Your task to perform on an android device: uninstall "Venmo" Image 0: 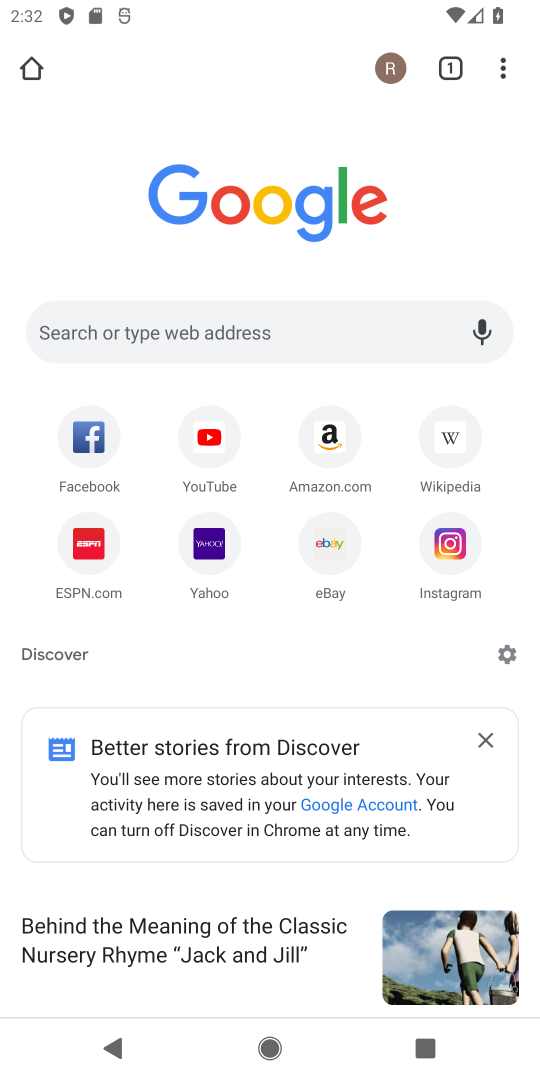
Step 0: press home button
Your task to perform on an android device: uninstall "Venmo" Image 1: 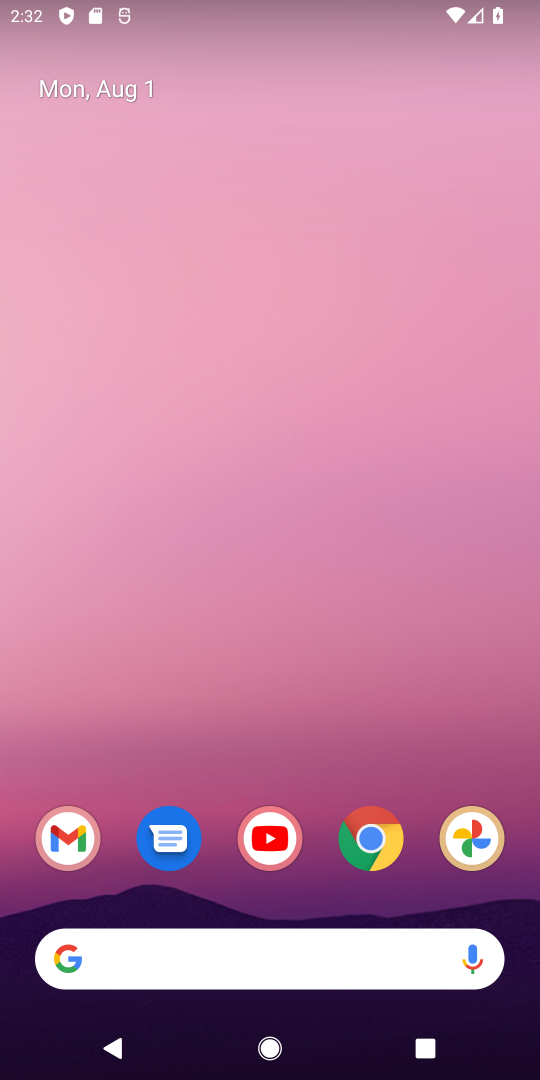
Step 1: drag from (341, 717) to (422, 2)
Your task to perform on an android device: uninstall "Venmo" Image 2: 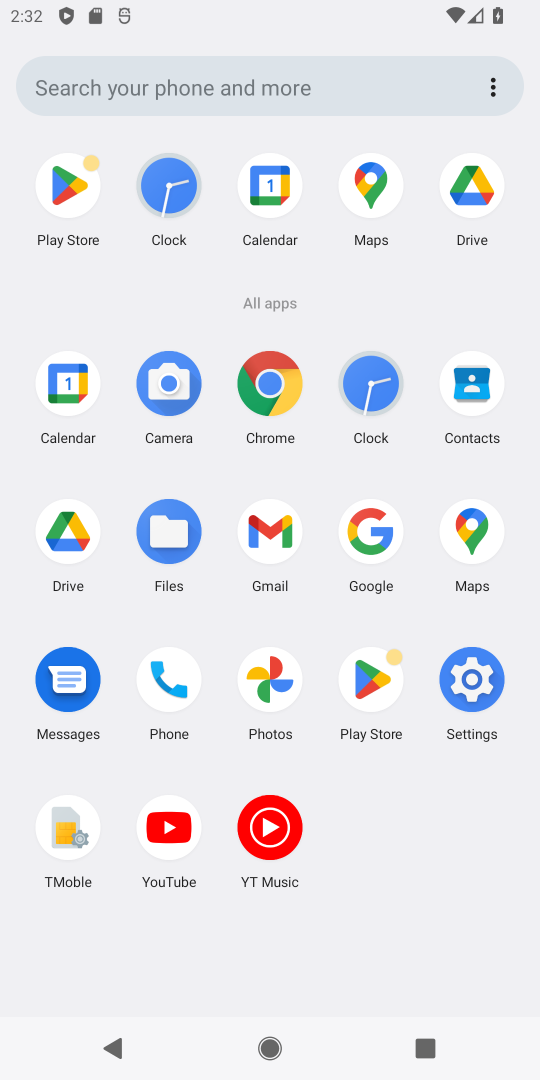
Step 2: click (378, 684)
Your task to perform on an android device: uninstall "Venmo" Image 3: 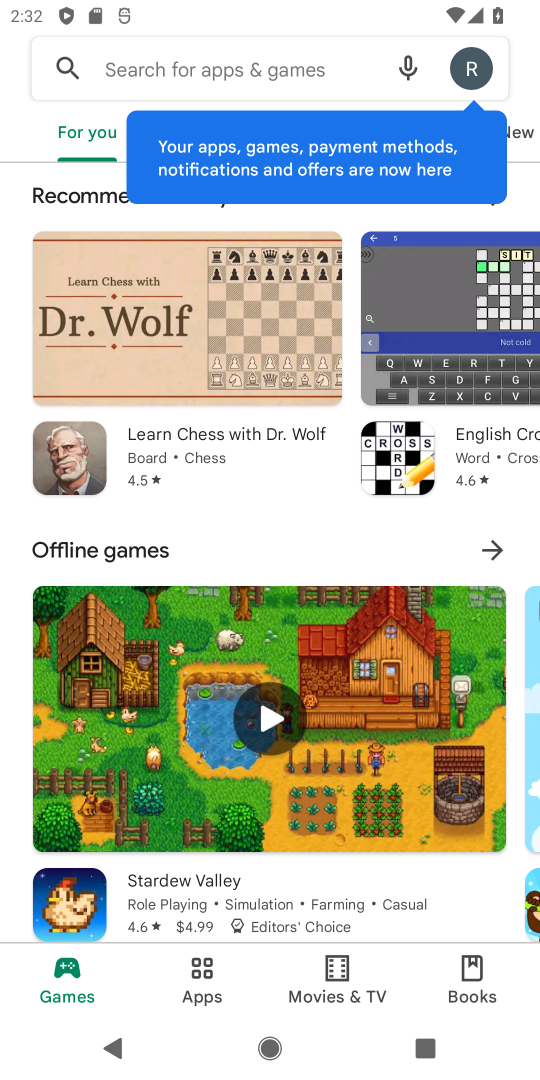
Step 3: click (278, 64)
Your task to perform on an android device: uninstall "Venmo" Image 4: 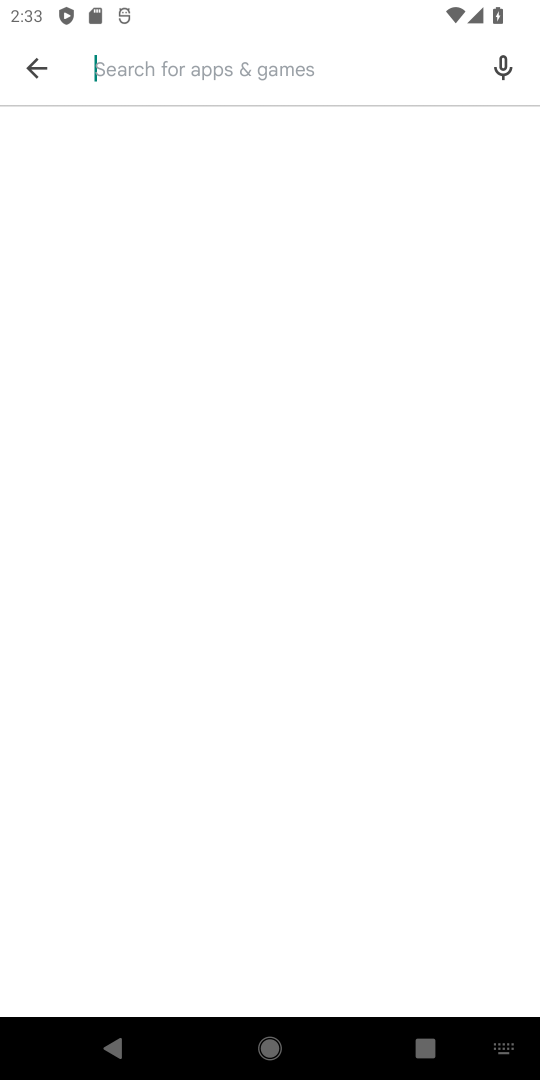
Step 4: type "venmo"
Your task to perform on an android device: uninstall "Venmo" Image 5: 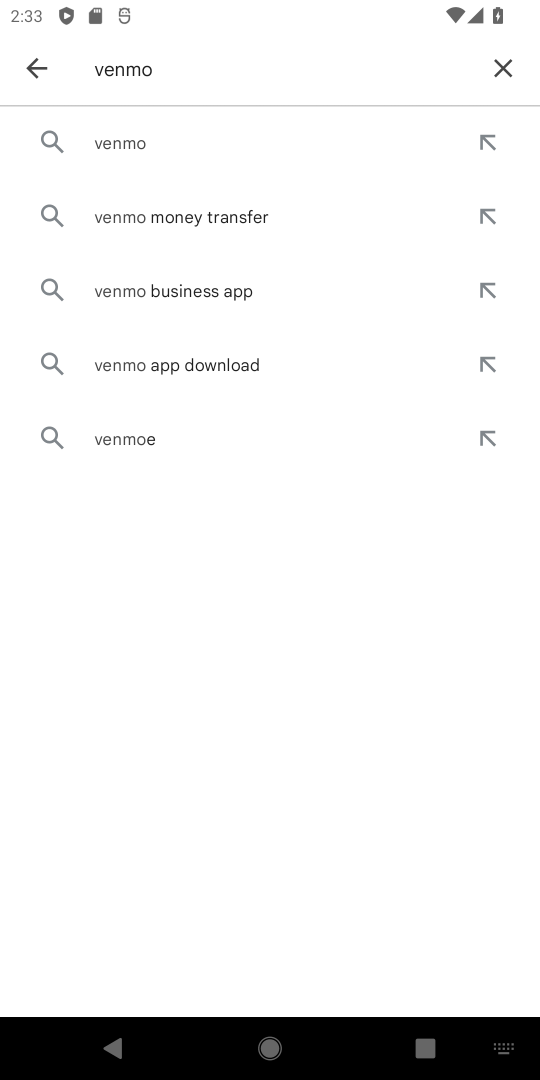
Step 5: click (132, 145)
Your task to perform on an android device: uninstall "Venmo" Image 6: 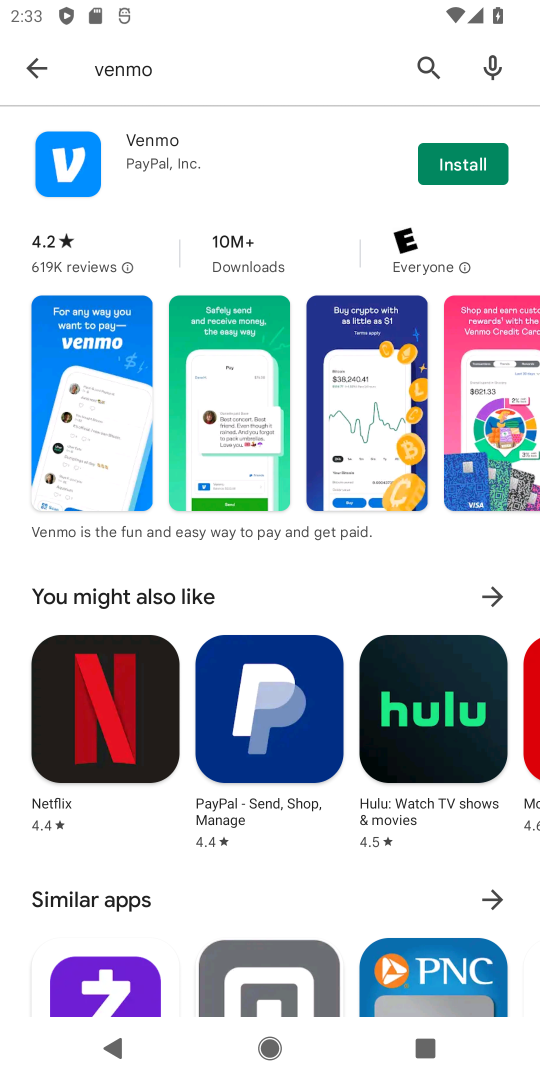
Step 6: task complete